Your task to perform on an android device: allow cookies in the chrome app Image 0: 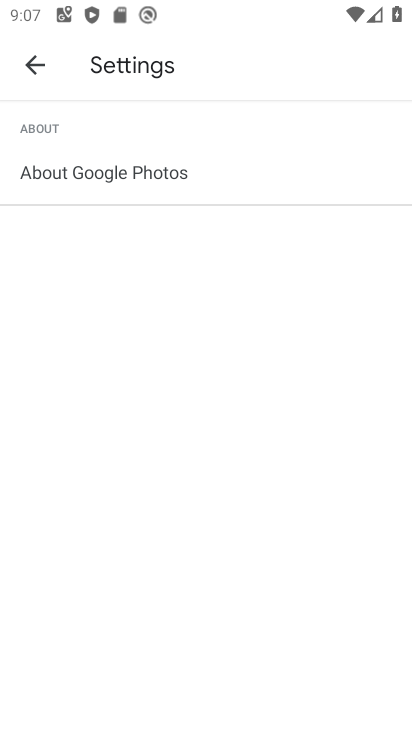
Step 0: press home button
Your task to perform on an android device: allow cookies in the chrome app Image 1: 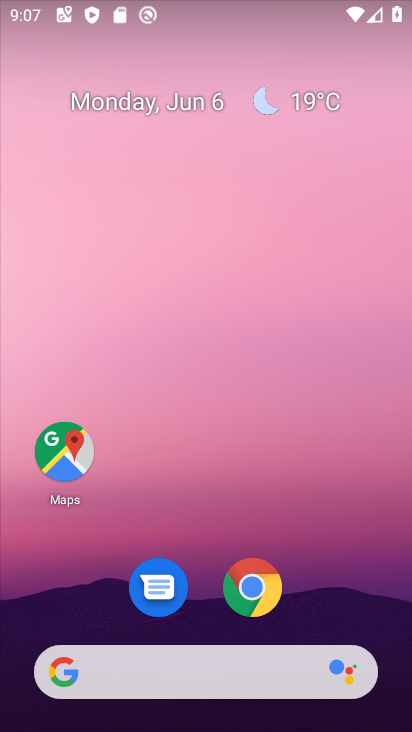
Step 1: click (254, 583)
Your task to perform on an android device: allow cookies in the chrome app Image 2: 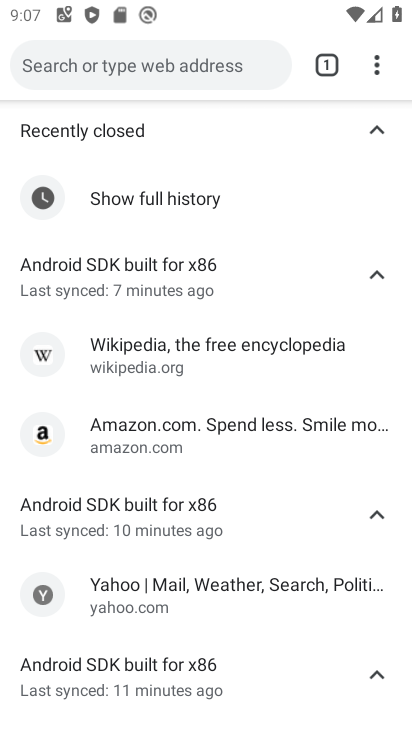
Step 2: drag from (363, 75) to (253, 551)
Your task to perform on an android device: allow cookies in the chrome app Image 3: 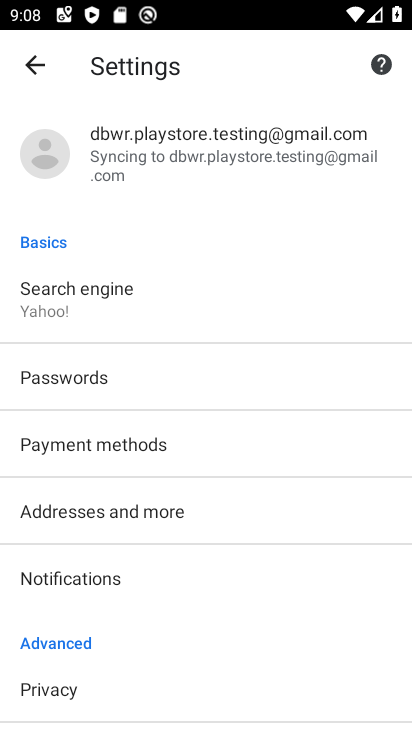
Step 3: drag from (166, 593) to (191, 97)
Your task to perform on an android device: allow cookies in the chrome app Image 4: 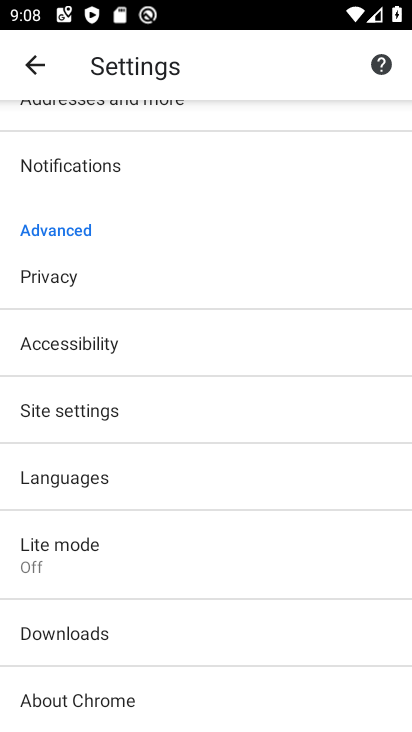
Step 4: click (167, 405)
Your task to perform on an android device: allow cookies in the chrome app Image 5: 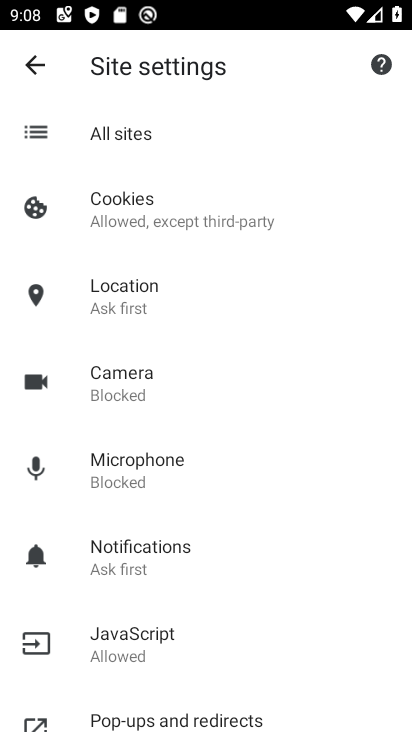
Step 5: click (104, 200)
Your task to perform on an android device: allow cookies in the chrome app Image 6: 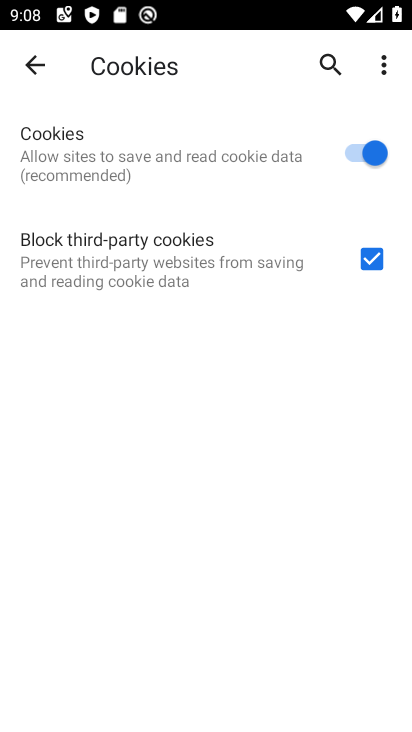
Step 6: task complete